Your task to perform on an android device: Open Google Chrome and open the bookmarks view Image 0: 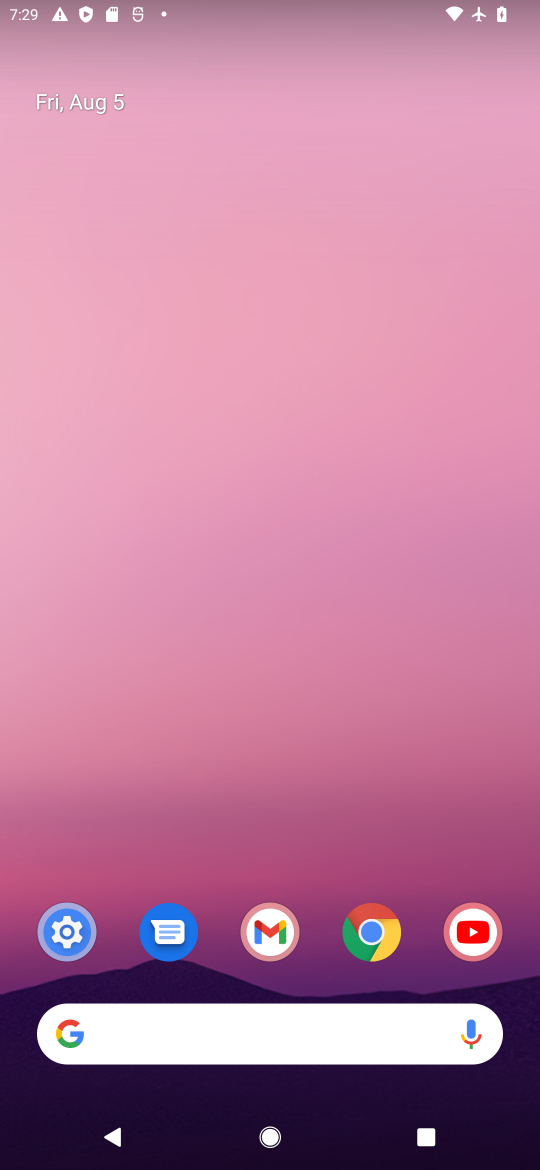
Step 0: click (373, 935)
Your task to perform on an android device: Open Google Chrome and open the bookmarks view Image 1: 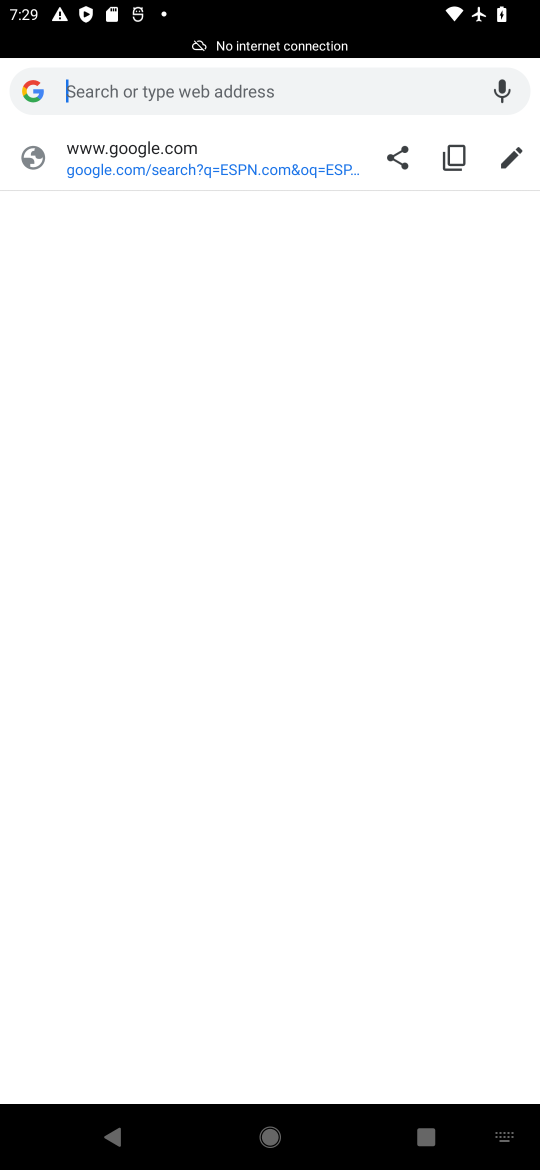
Step 1: press back button
Your task to perform on an android device: Open Google Chrome and open the bookmarks view Image 2: 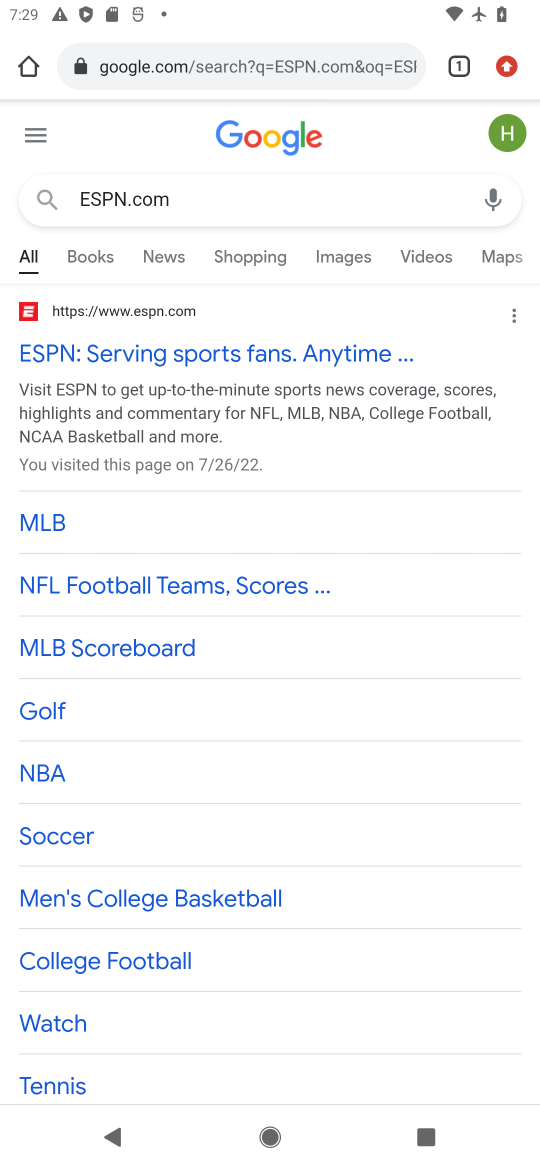
Step 2: click (509, 68)
Your task to perform on an android device: Open Google Chrome and open the bookmarks view Image 3: 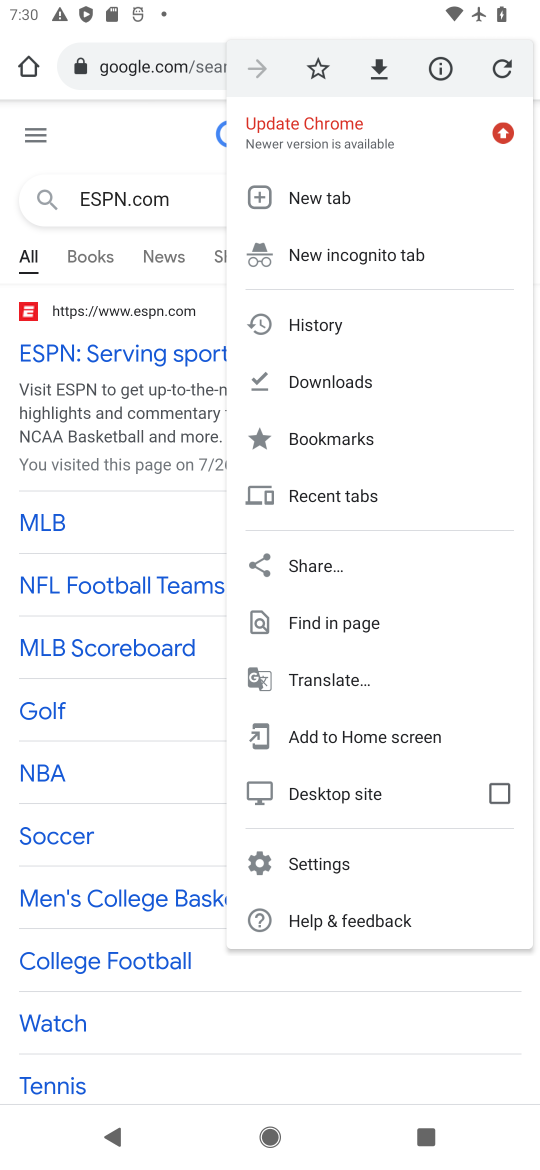
Step 3: click (379, 430)
Your task to perform on an android device: Open Google Chrome and open the bookmarks view Image 4: 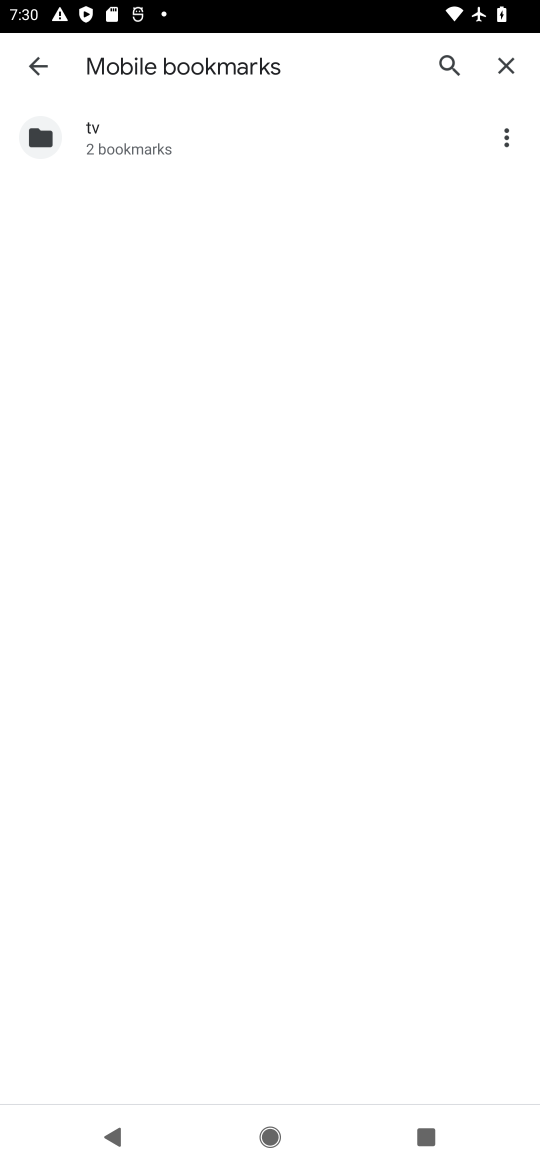
Step 4: task complete